Your task to perform on an android device: Go to battery settings Image 0: 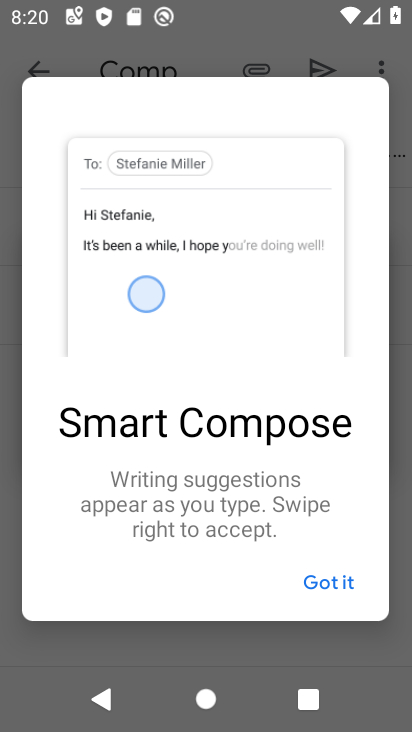
Step 0: press home button
Your task to perform on an android device: Go to battery settings Image 1: 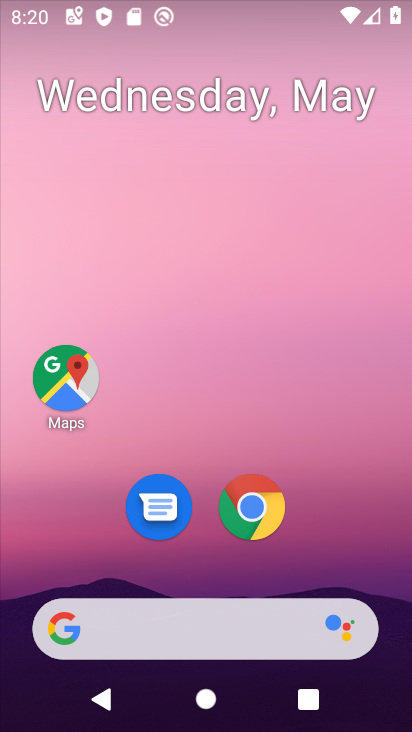
Step 1: drag from (256, 568) to (257, 300)
Your task to perform on an android device: Go to battery settings Image 2: 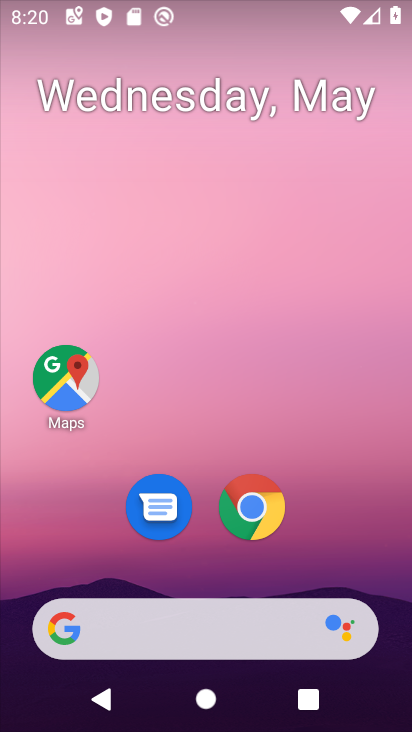
Step 2: drag from (309, 467) to (292, 258)
Your task to perform on an android device: Go to battery settings Image 3: 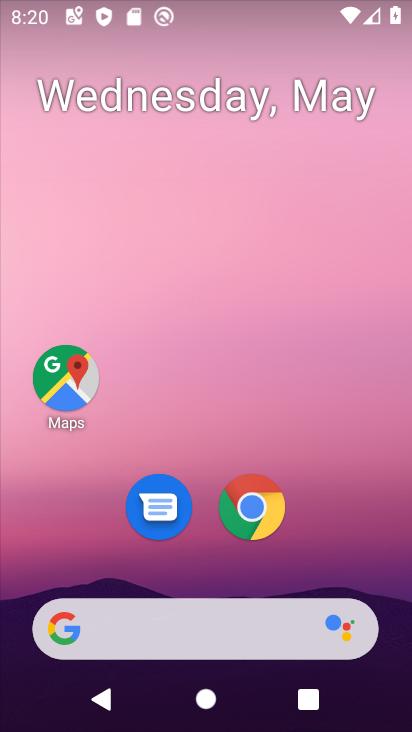
Step 3: drag from (264, 575) to (232, 265)
Your task to perform on an android device: Go to battery settings Image 4: 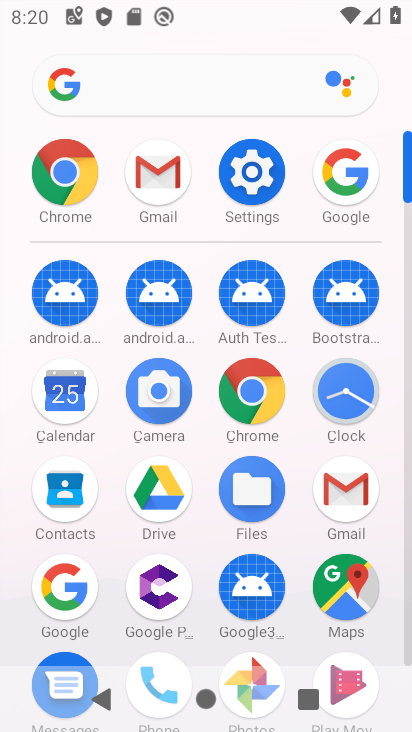
Step 4: click (238, 174)
Your task to perform on an android device: Go to battery settings Image 5: 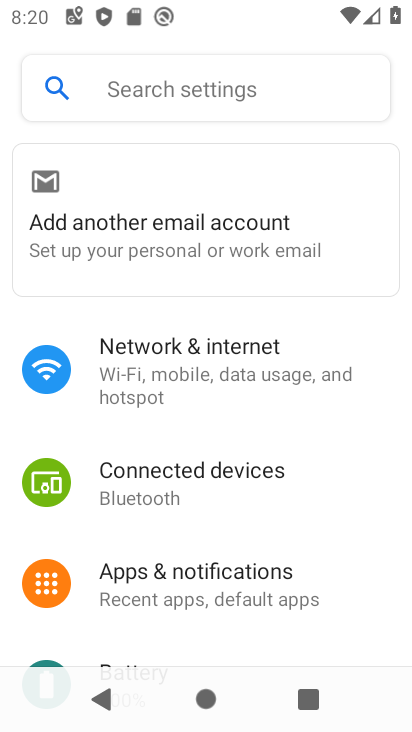
Step 5: drag from (199, 614) to (207, 413)
Your task to perform on an android device: Go to battery settings Image 6: 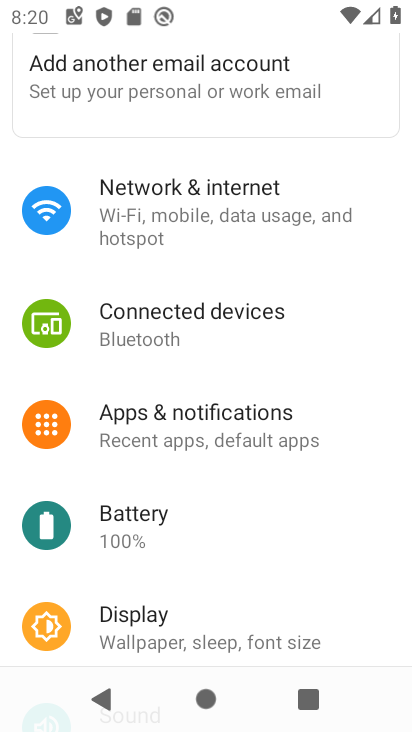
Step 6: click (162, 519)
Your task to perform on an android device: Go to battery settings Image 7: 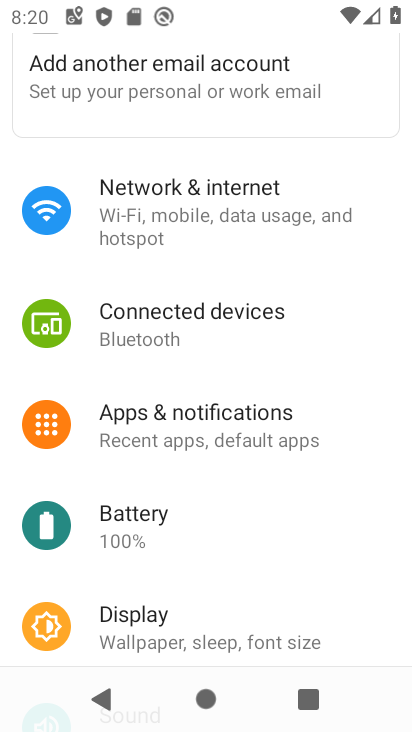
Step 7: click (152, 516)
Your task to perform on an android device: Go to battery settings Image 8: 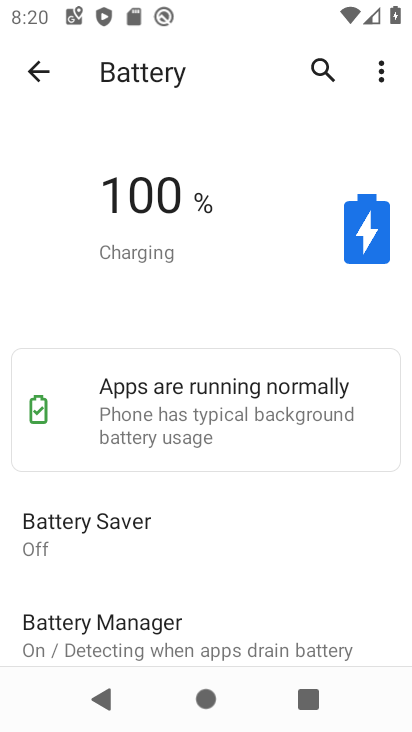
Step 8: task complete